Your task to perform on an android device: check battery use Image 0: 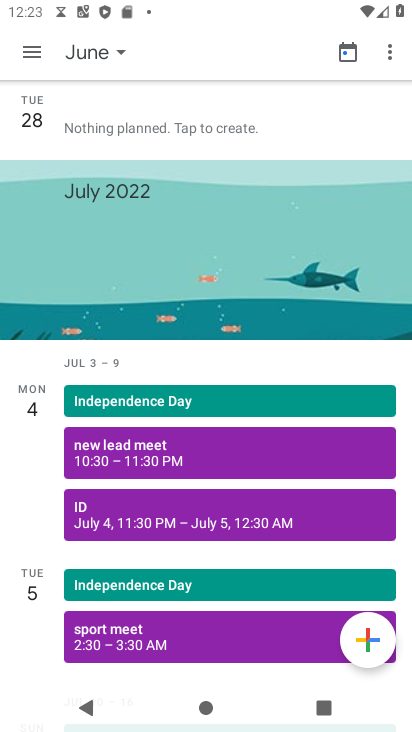
Step 0: press home button
Your task to perform on an android device: check battery use Image 1: 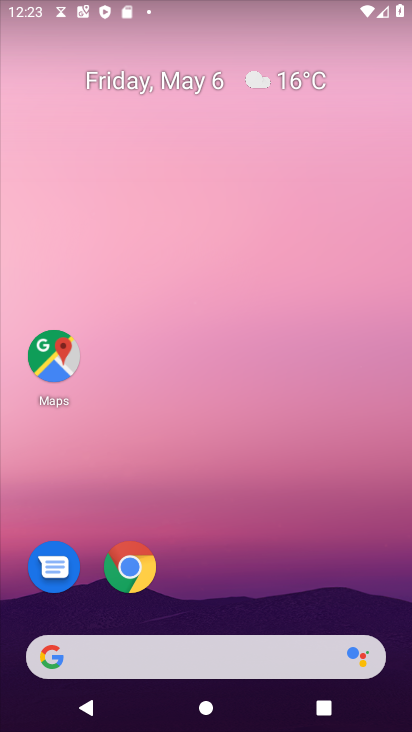
Step 1: drag from (311, 553) to (384, 100)
Your task to perform on an android device: check battery use Image 2: 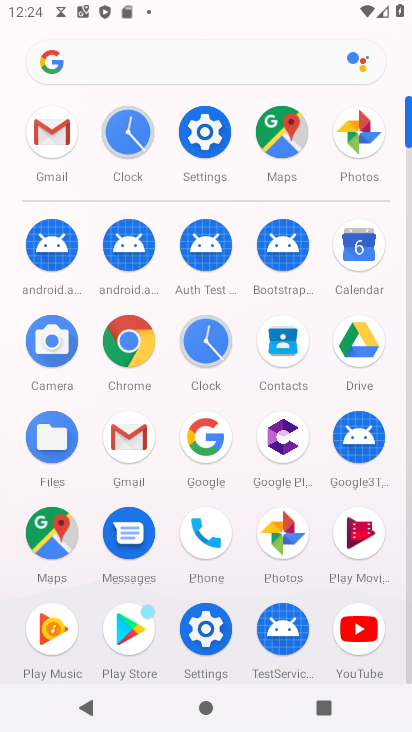
Step 2: click (209, 132)
Your task to perform on an android device: check battery use Image 3: 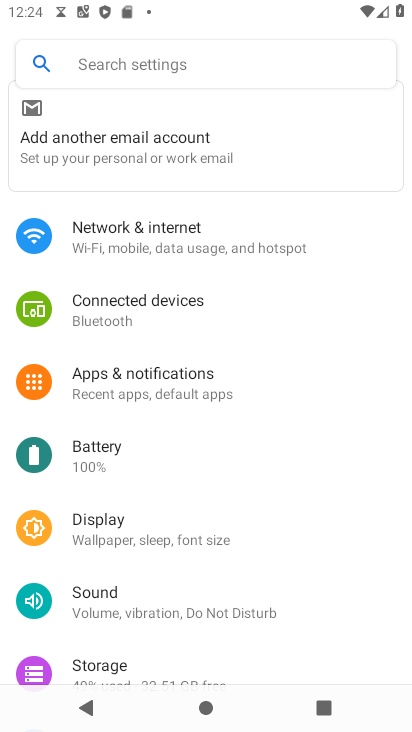
Step 3: drag from (202, 538) to (204, 169)
Your task to perform on an android device: check battery use Image 4: 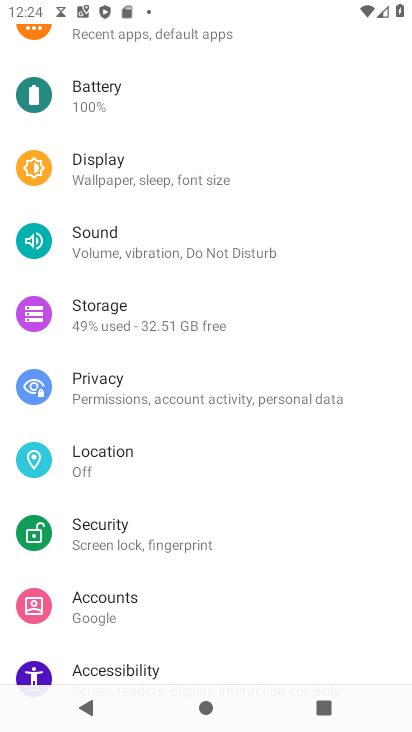
Step 4: click (100, 99)
Your task to perform on an android device: check battery use Image 5: 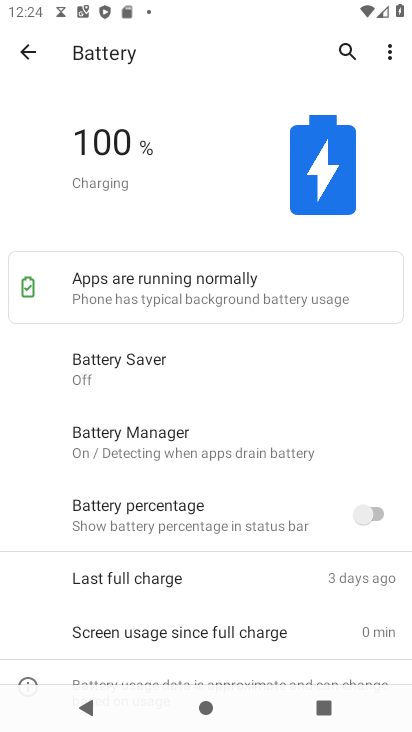
Step 5: task complete